Your task to perform on an android device: Go to Amazon Image 0: 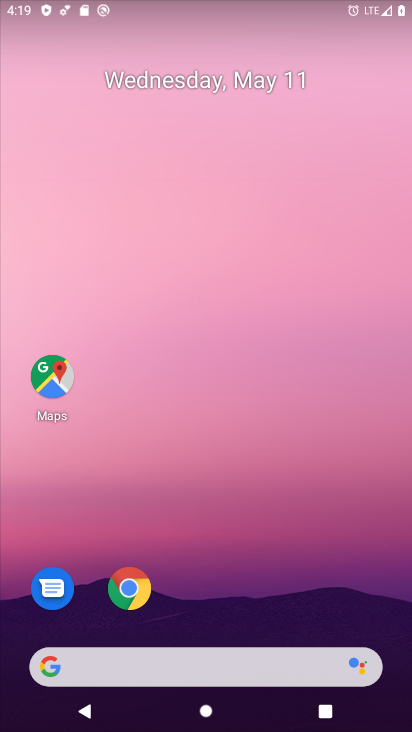
Step 0: drag from (253, 540) to (274, 82)
Your task to perform on an android device: Go to Amazon Image 1: 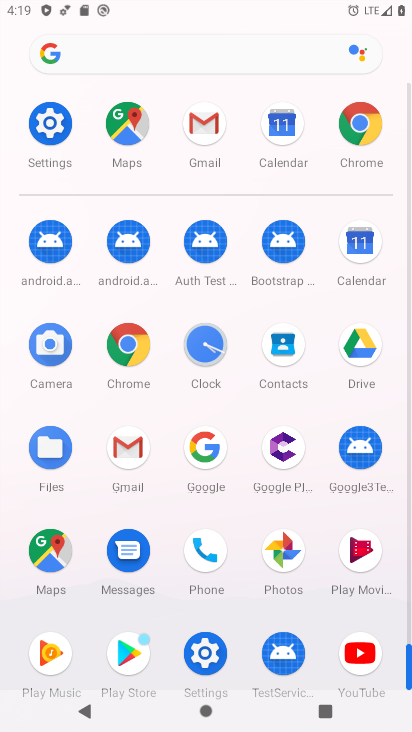
Step 1: click (355, 129)
Your task to perform on an android device: Go to Amazon Image 2: 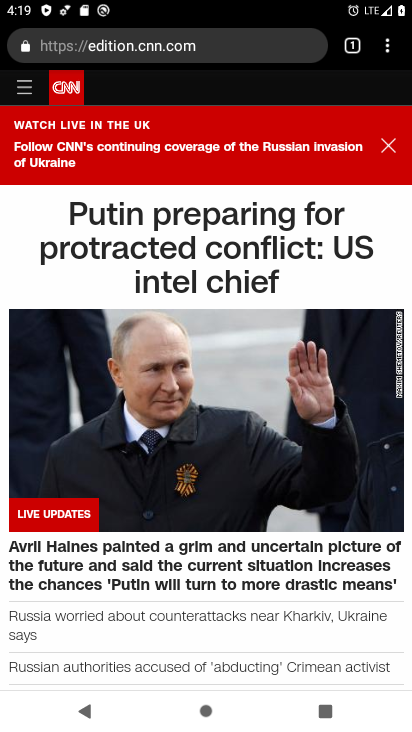
Step 2: click (291, 46)
Your task to perform on an android device: Go to Amazon Image 3: 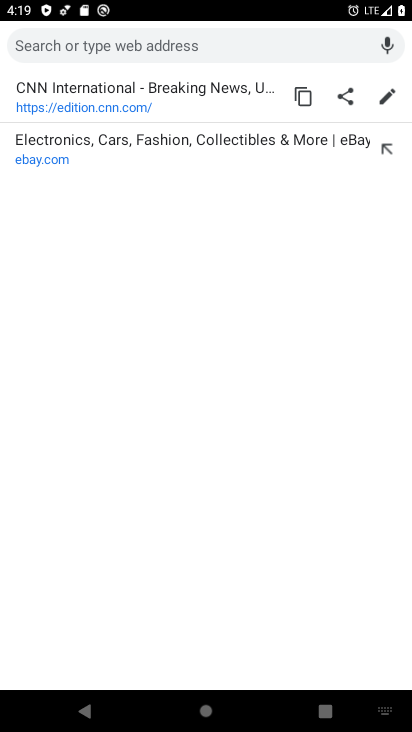
Step 3: type "amazon"
Your task to perform on an android device: Go to Amazon Image 4: 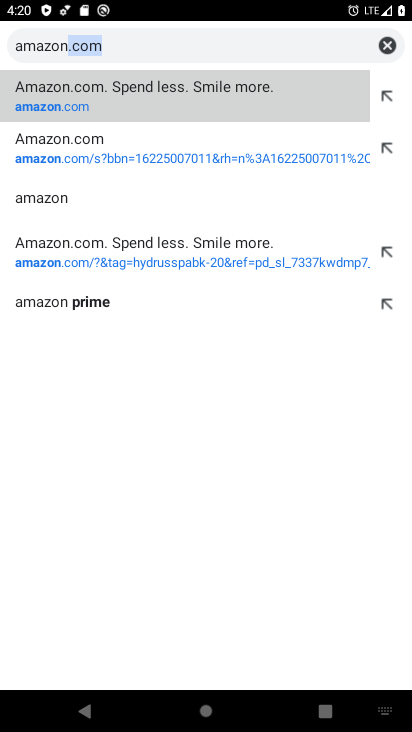
Step 4: press enter
Your task to perform on an android device: Go to Amazon Image 5: 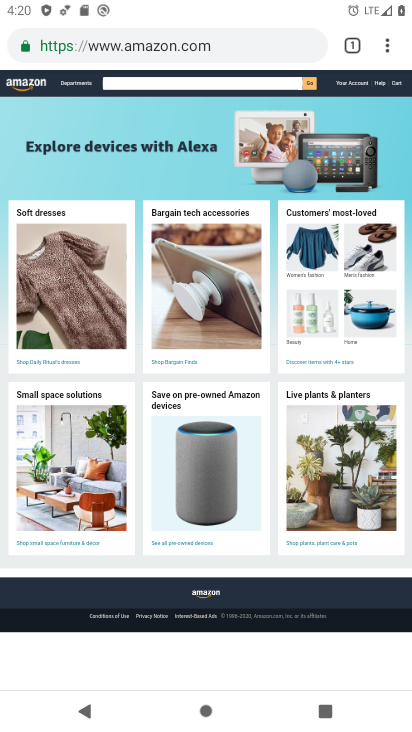
Step 5: task complete